Your task to perform on an android device: move a message to another label in the gmail app Image 0: 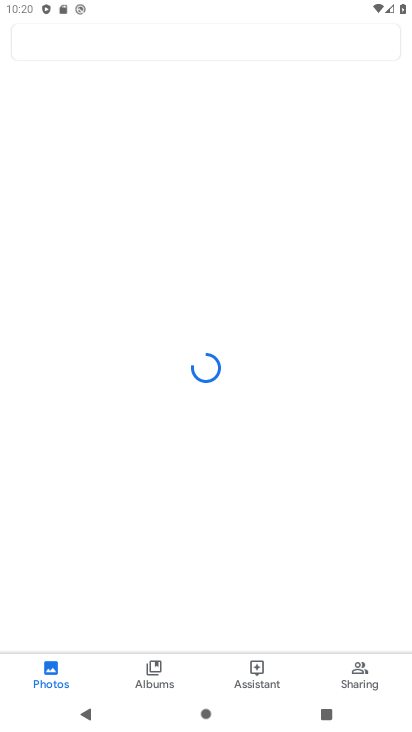
Step 0: press home button
Your task to perform on an android device: move a message to another label in the gmail app Image 1: 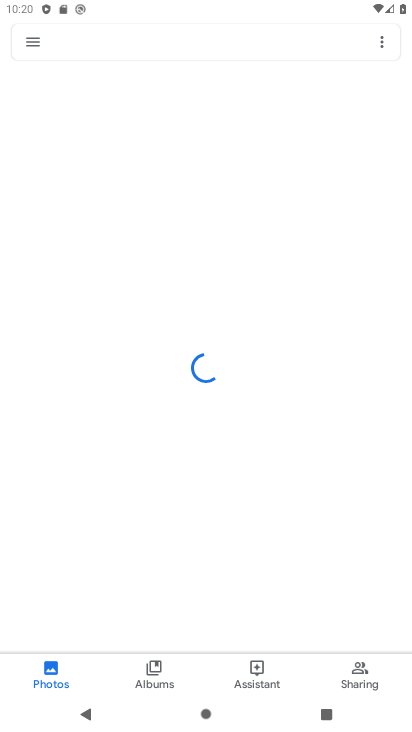
Step 1: drag from (333, 657) to (168, 19)
Your task to perform on an android device: move a message to another label in the gmail app Image 2: 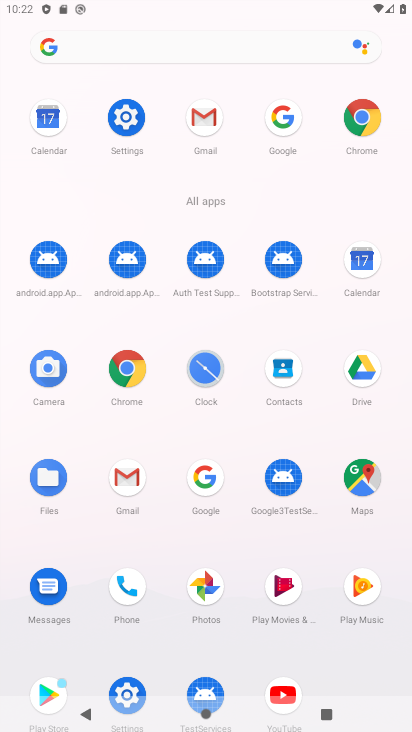
Step 2: click (113, 478)
Your task to perform on an android device: move a message to another label in the gmail app Image 3: 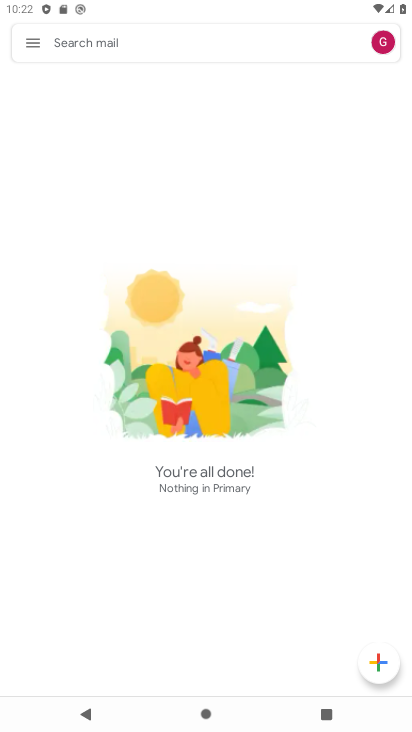
Step 3: task complete